Your task to perform on an android device: Open my contact list Image 0: 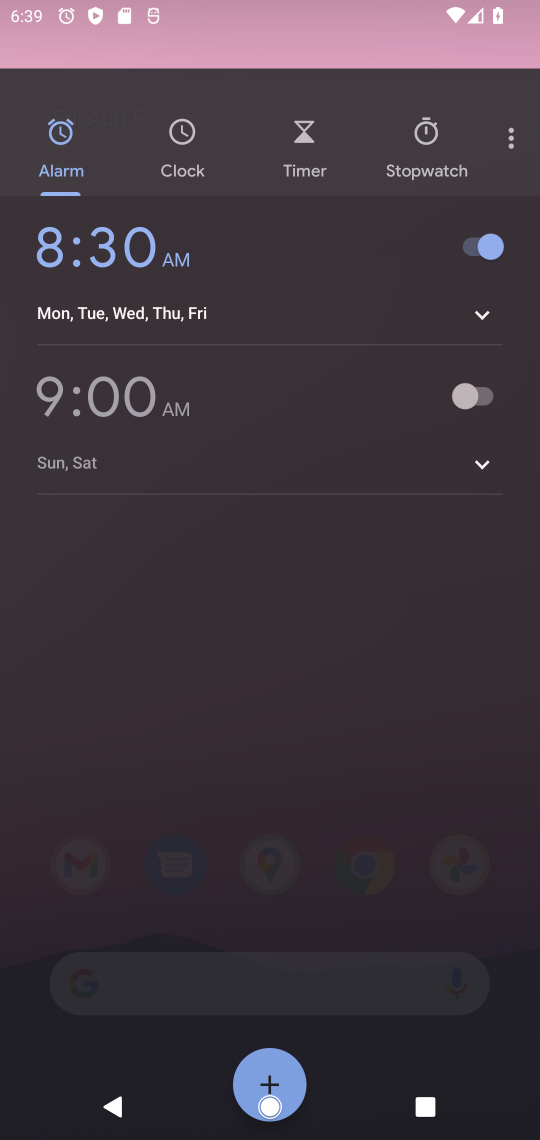
Step 0: press home button
Your task to perform on an android device: Open my contact list Image 1: 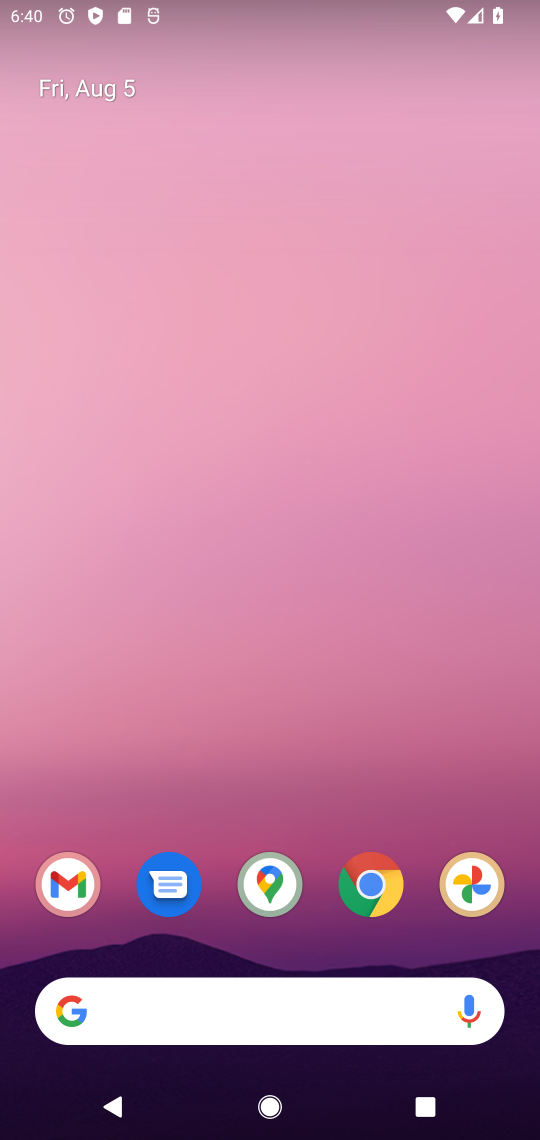
Step 1: drag from (312, 937) to (374, 39)
Your task to perform on an android device: Open my contact list Image 2: 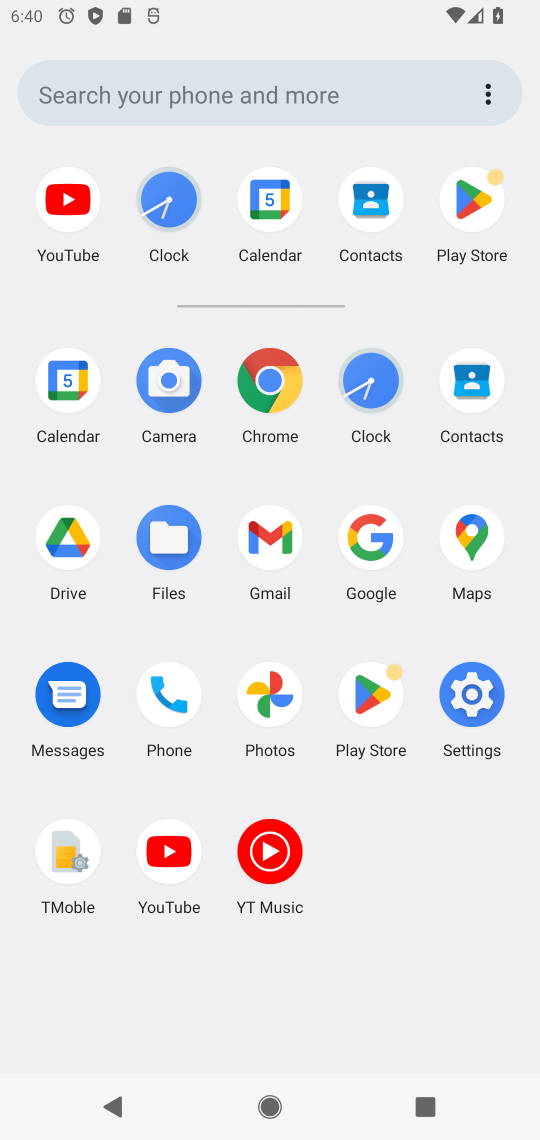
Step 2: click (469, 369)
Your task to perform on an android device: Open my contact list Image 3: 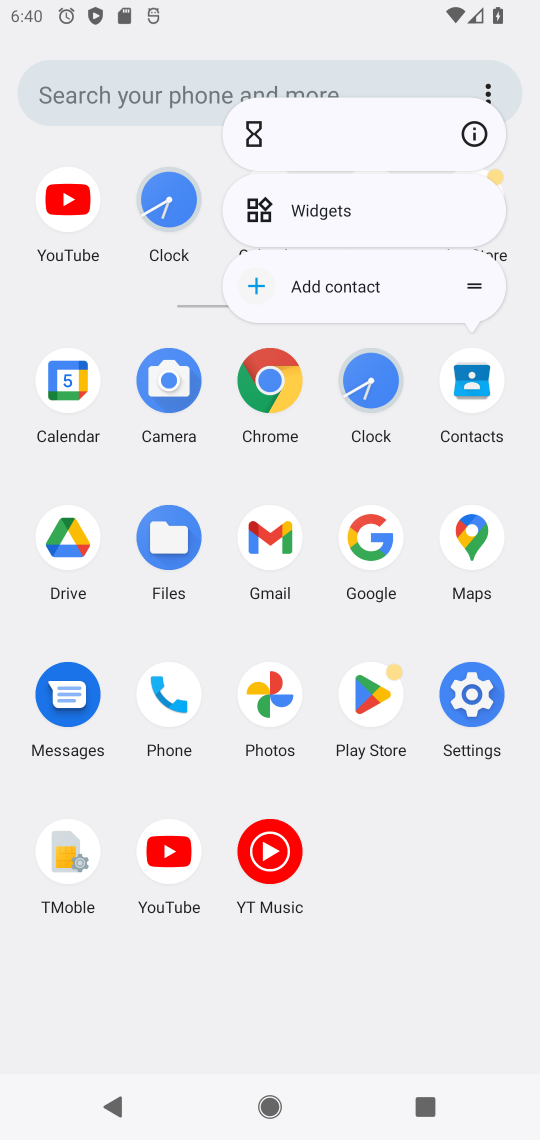
Step 3: click (471, 372)
Your task to perform on an android device: Open my contact list Image 4: 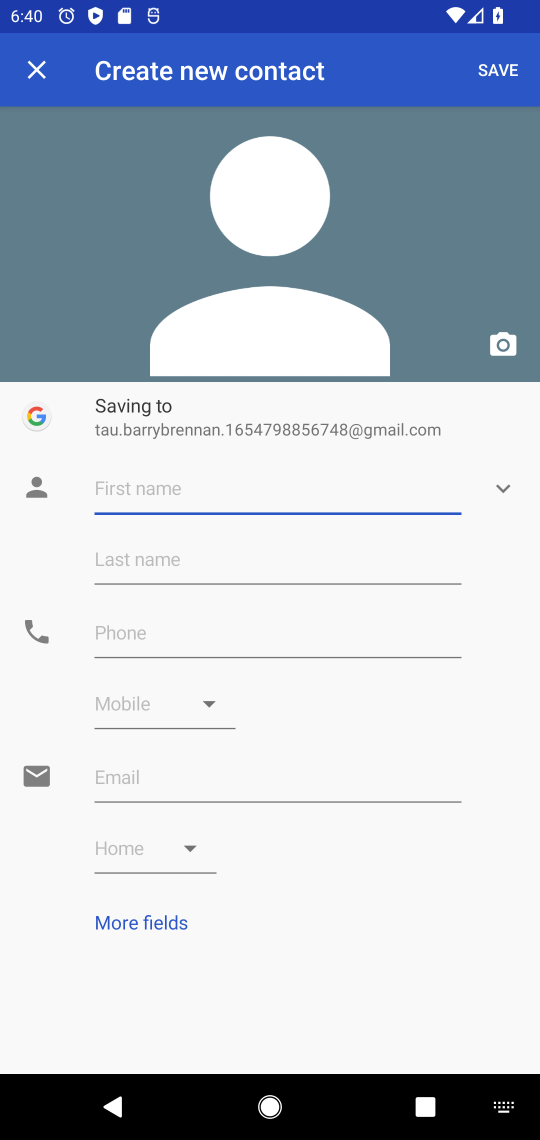
Step 4: click (30, 71)
Your task to perform on an android device: Open my contact list Image 5: 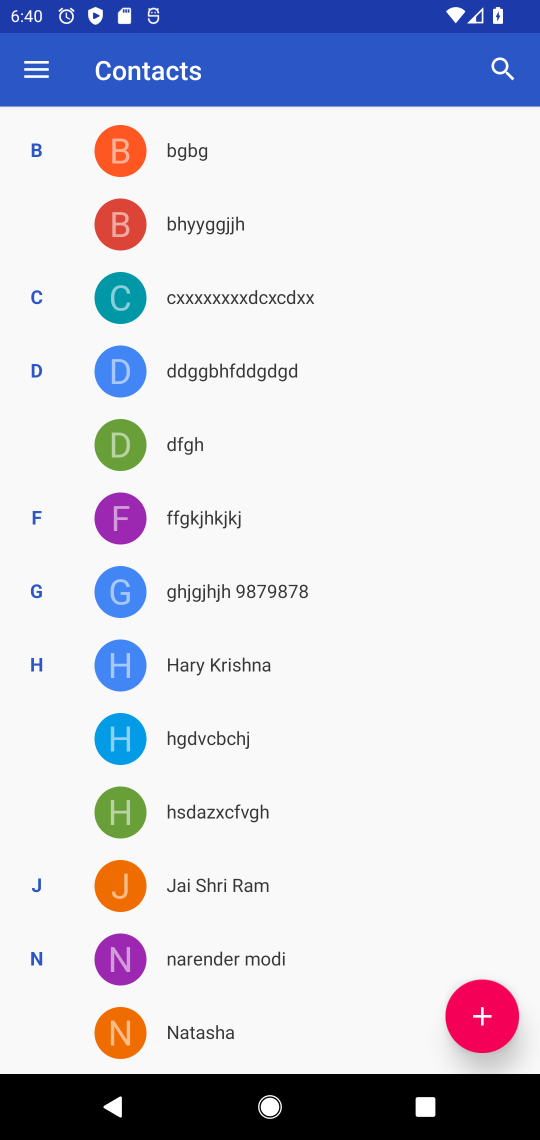
Step 5: task complete